Your task to perform on an android device: turn off improve location accuracy Image 0: 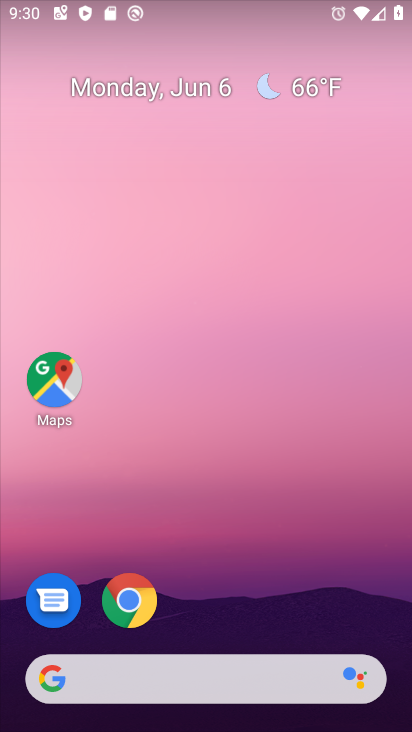
Step 0: drag from (46, 479) to (148, 176)
Your task to perform on an android device: turn off improve location accuracy Image 1: 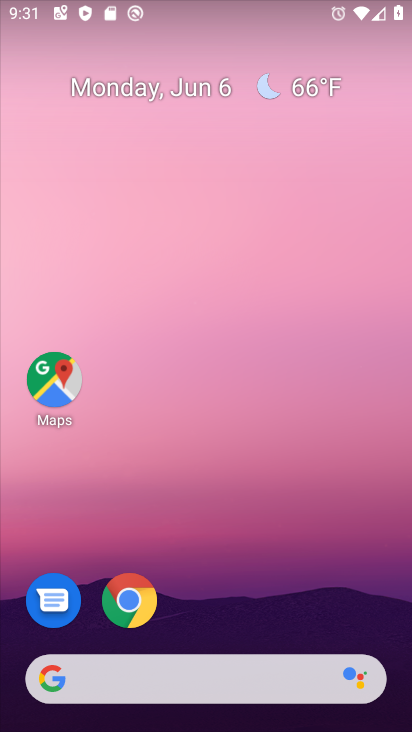
Step 1: drag from (23, 531) to (184, 138)
Your task to perform on an android device: turn off improve location accuracy Image 2: 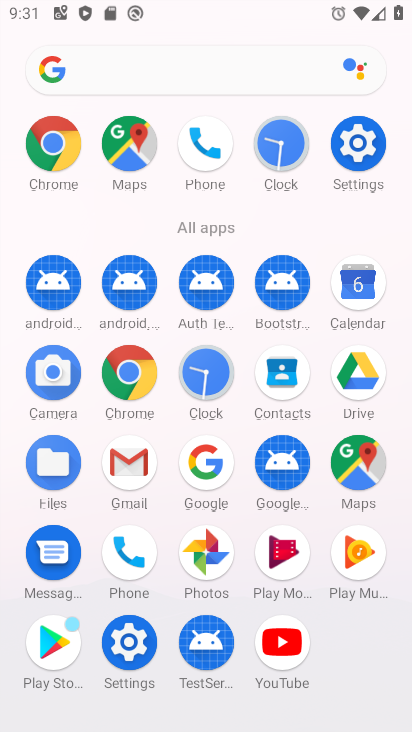
Step 2: click (358, 139)
Your task to perform on an android device: turn off improve location accuracy Image 3: 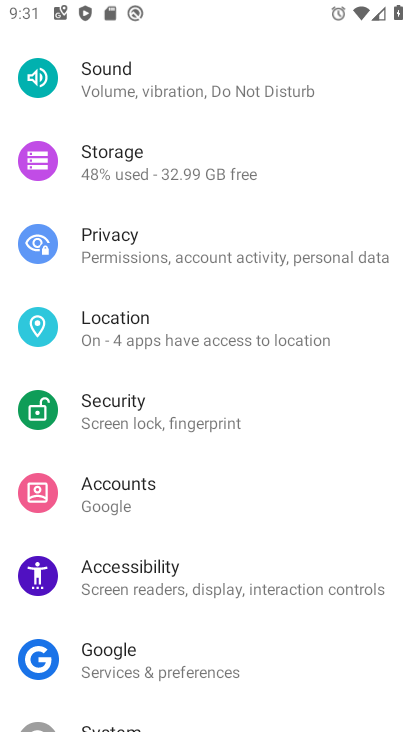
Step 3: drag from (187, 151) to (176, 479)
Your task to perform on an android device: turn off improve location accuracy Image 4: 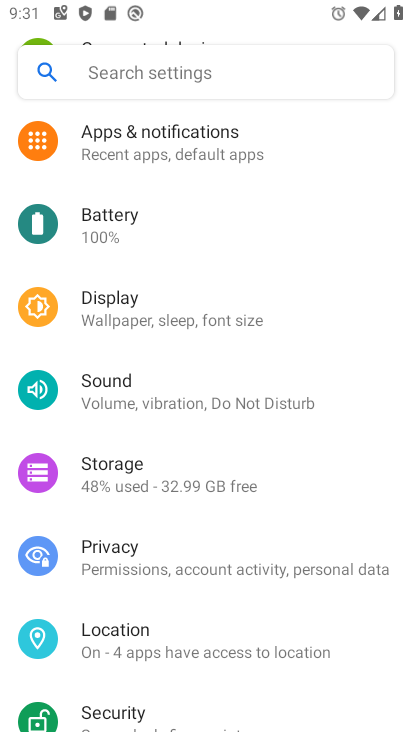
Step 4: click (136, 631)
Your task to perform on an android device: turn off improve location accuracy Image 5: 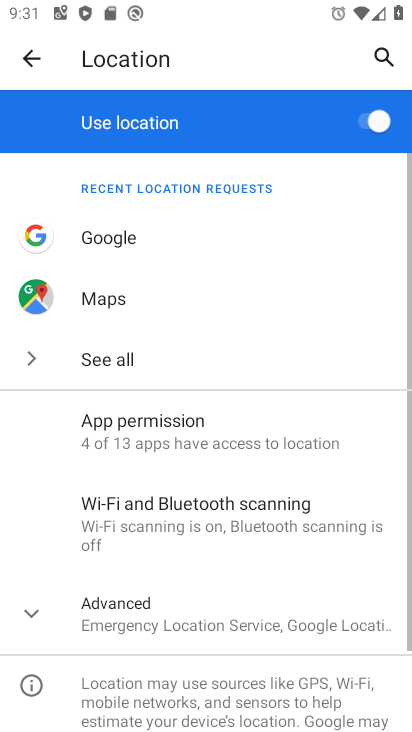
Step 5: click (183, 613)
Your task to perform on an android device: turn off improve location accuracy Image 6: 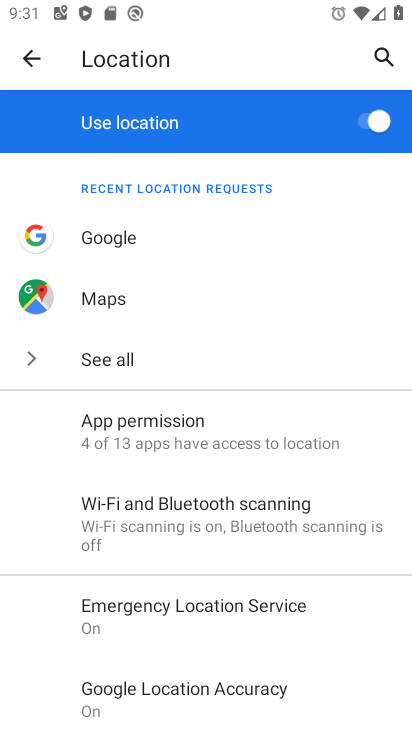
Step 6: drag from (80, 394) to (187, 176)
Your task to perform on an android device: turn off improve location accuracy Image 7: 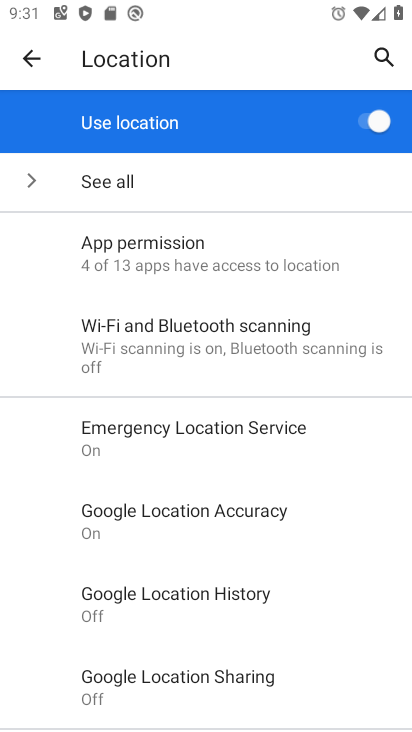
Step 7: click (131, 518)
Your task to perform on an android device: turn off improve location accuracy Image 8: 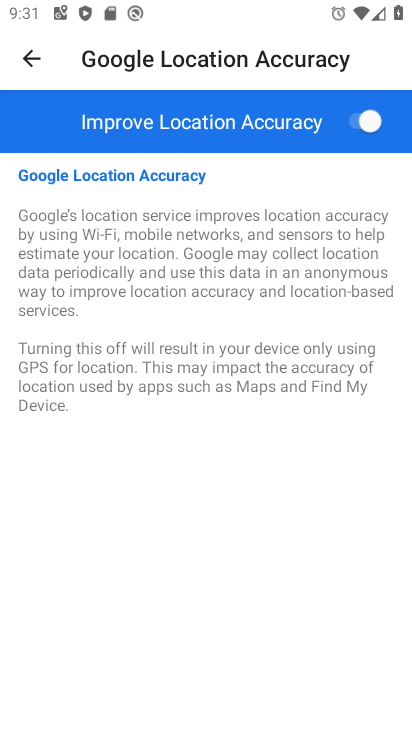
Step 8: click (374, 121)
Your task to perform on an android device: turn off improve location accuracy Image 9: 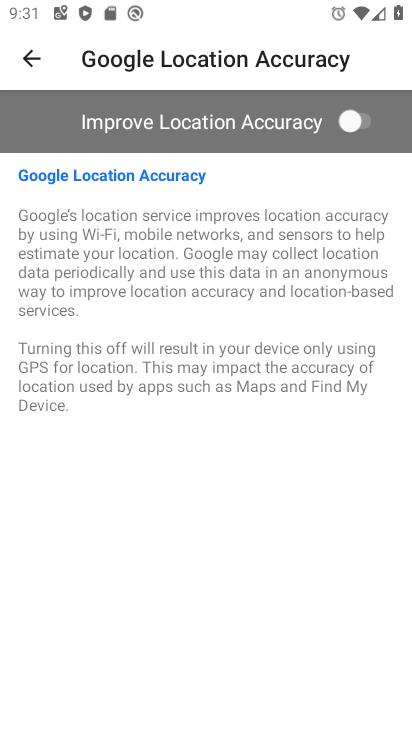
Step 9: task complete